Your task to perform on an android device: When is my next appointment? Image 0: 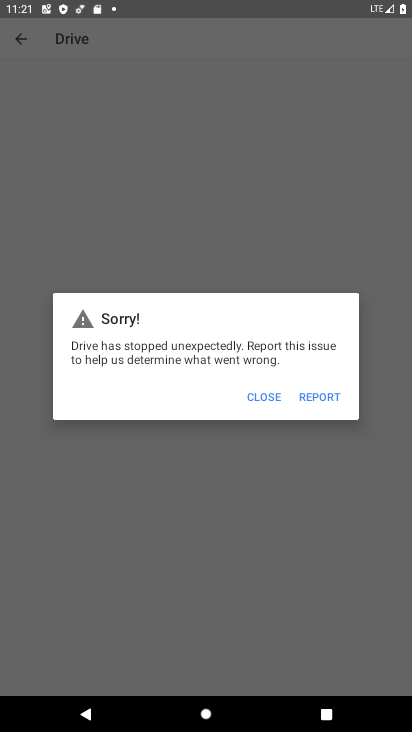
Step 0: press home button
Your task to perform on an android device: When is my next appointment? Image 1: 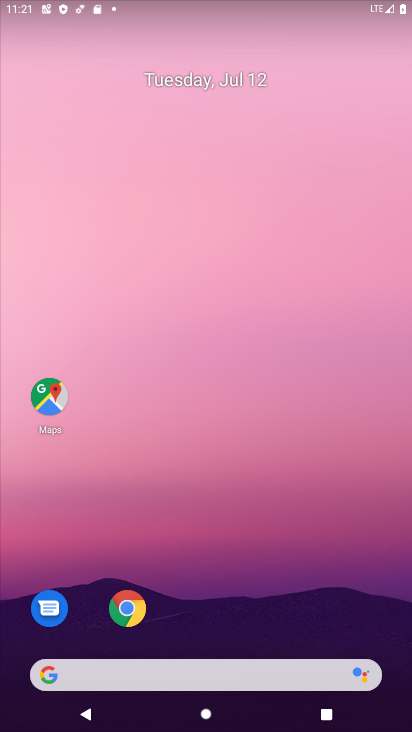
Step 1: click (198, 68)
Your task to perform on an android device: When is my next appointment? Image 2: 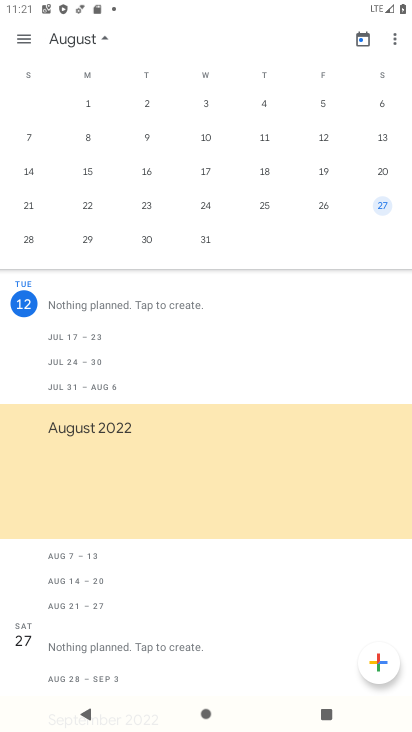
Step 2: task complete